Your task to perform on an android device: choose inbox layout in the gmail app Image 0: 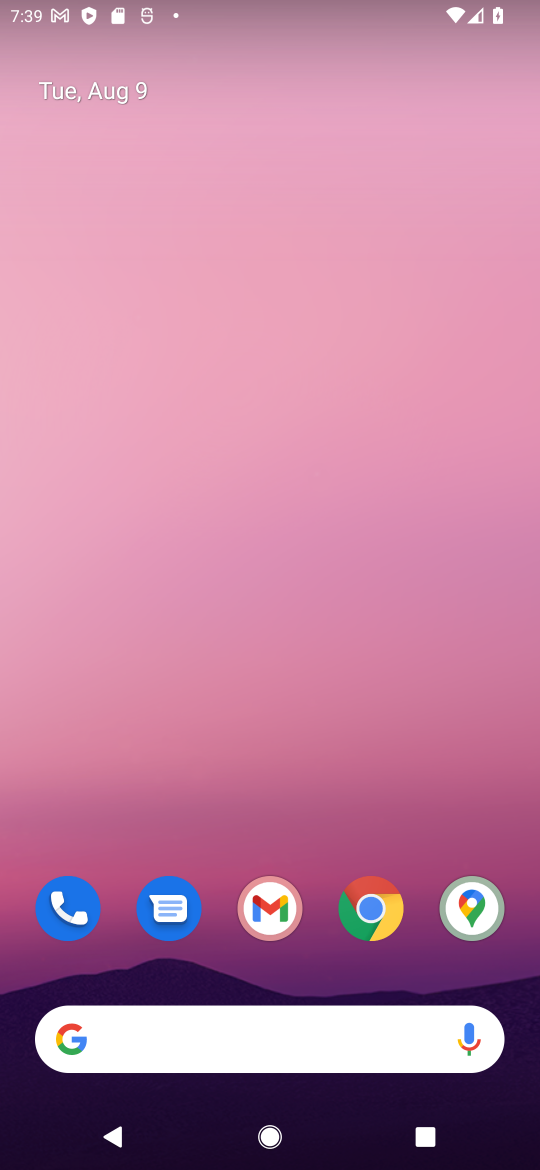
Step 0: drag from (303, 994) to (303, 32)
Your task to perform on an android device: choose inbox layout in the gmail app Image 1: 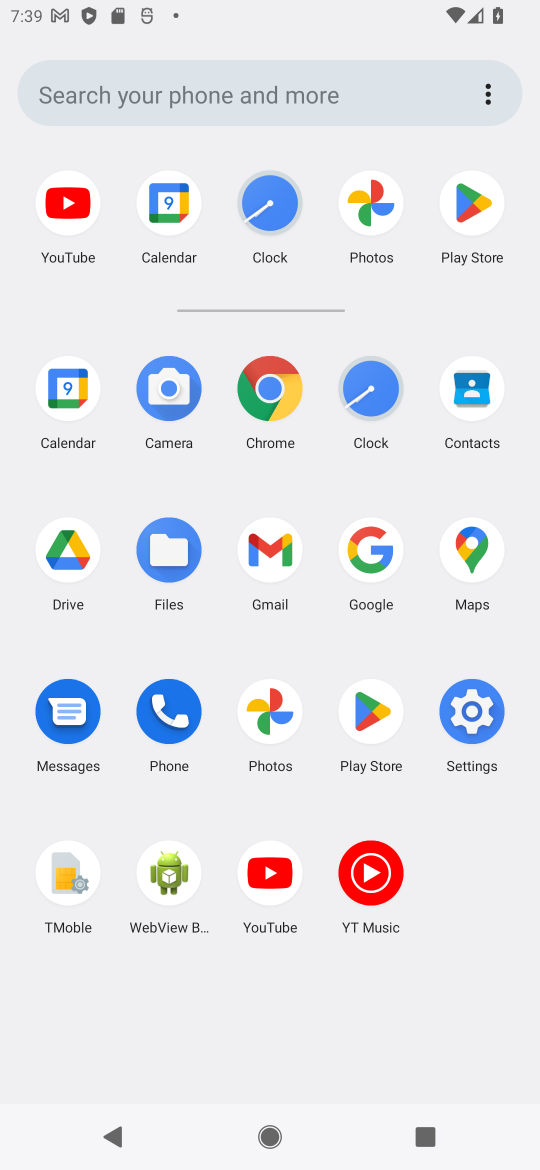
Step 1: click (274, 548)
Your task to perform on an android device: choose inbox layout in the gmail app Image 2: 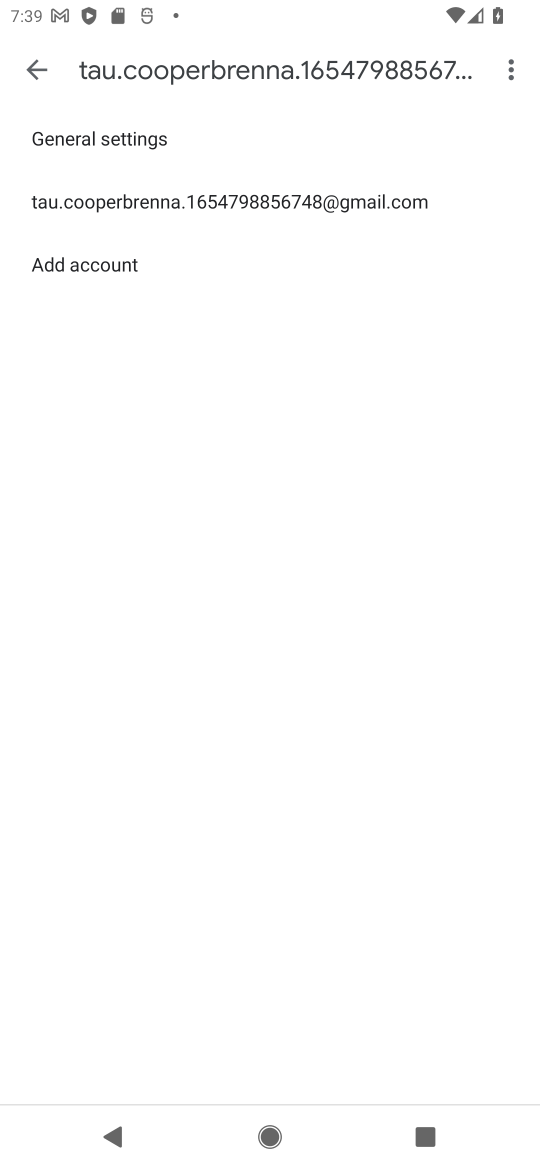
Step 2: click (190, 194)
Your task to perform on an android device: choose inbox layout in the gmail app Image 3: 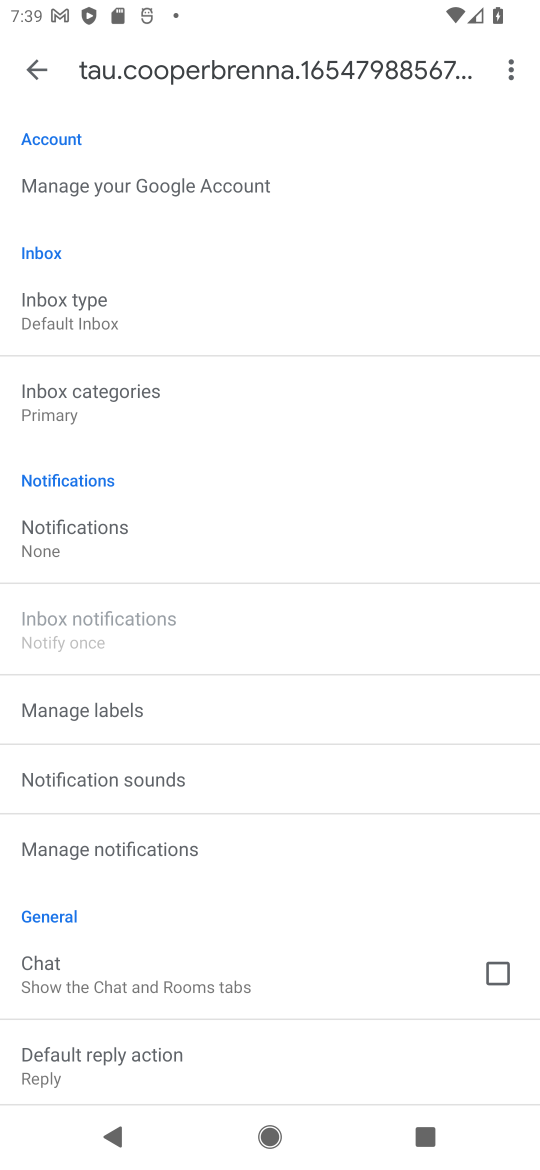
Step 3: drag from (115, 264) to (150, 908)
Your task to perform on an android device: choose inbox layout in the gmail app Image 4: 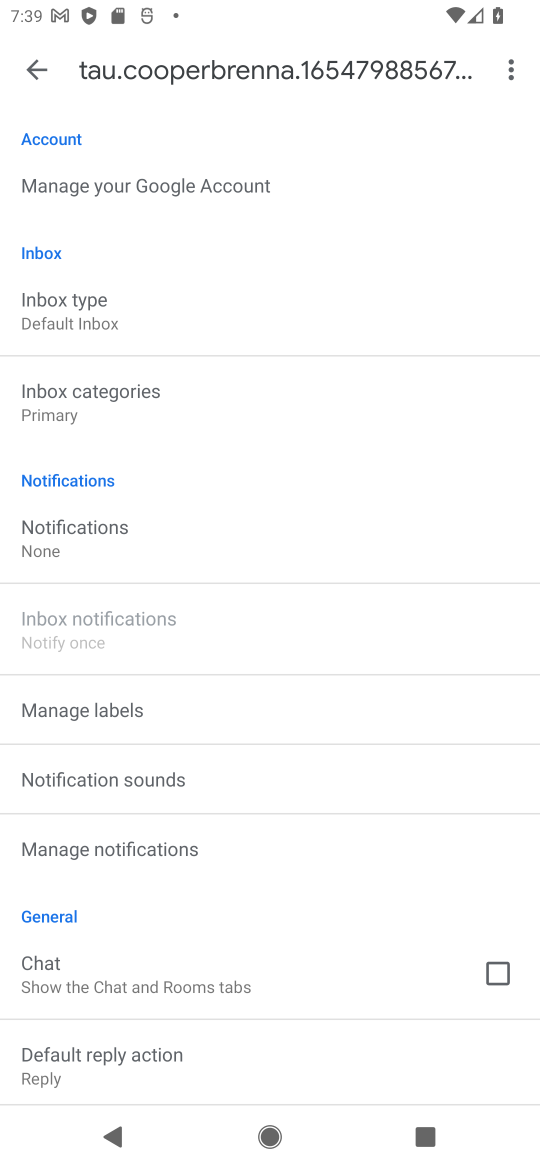
Step 4: click (79, 311)
Your task to perform on an android device: choose inbox layout in the gmail app Image 5: 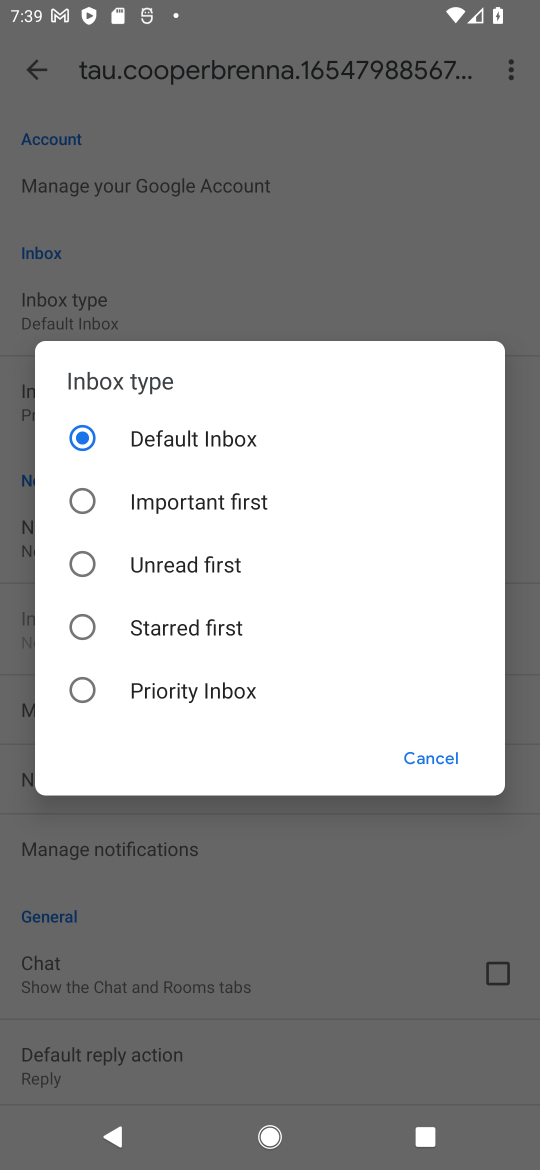
Step 5: click (80, 681)
Your task to perform on an android device: choose inbox layout in the gmail app Image 6: 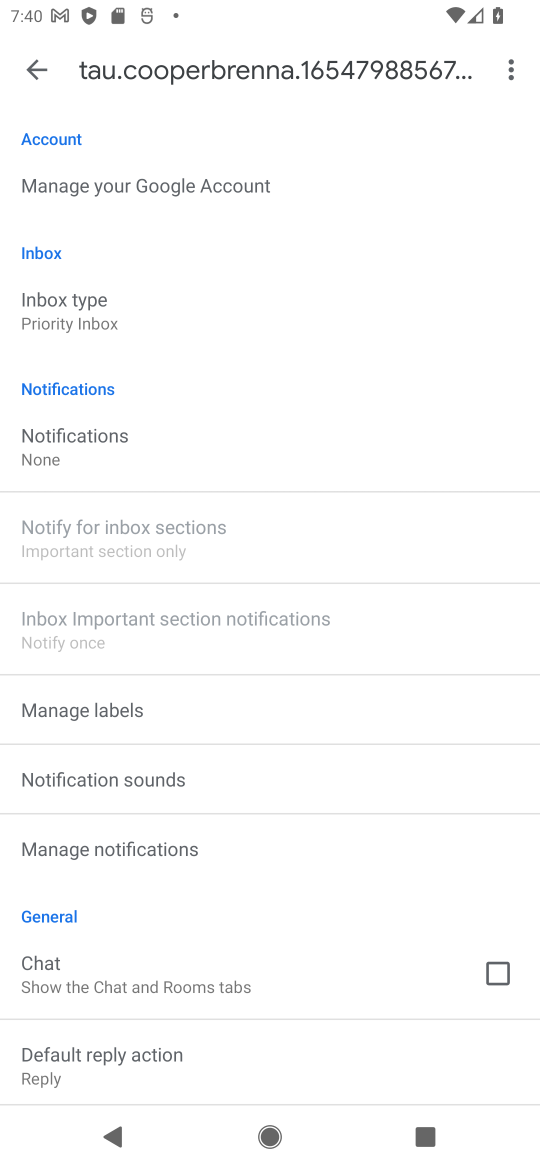
Step 6: task complete